Your task to perform on an android device: Do I have any events tomorrow? Image 0: 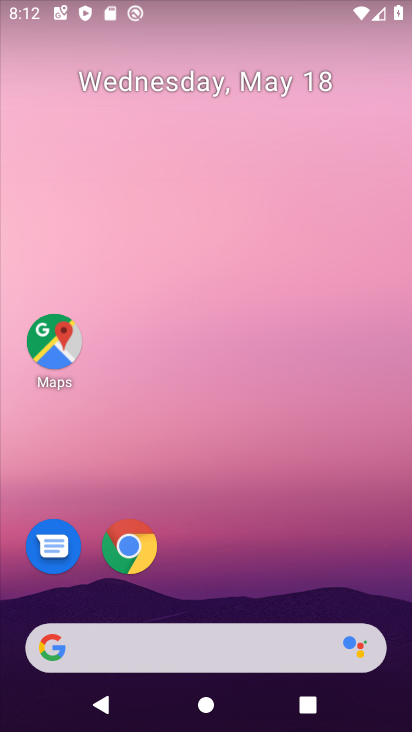
Step 0: drag from (240, 668) to (262, 181)
Your task to perform on an android device: Do I have any events tomorrow? Image 1: 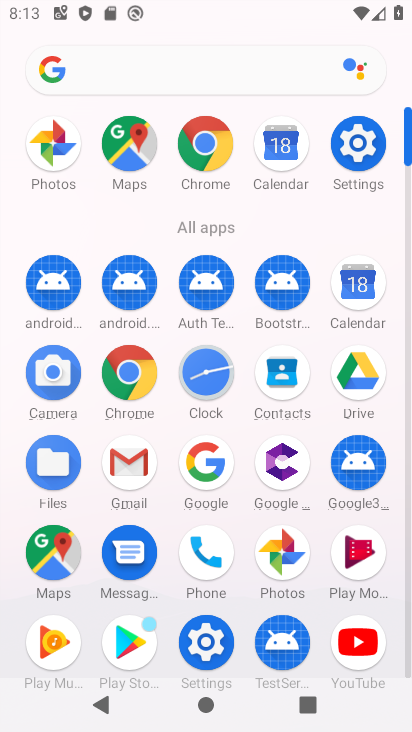
Step 1: click (360, 283)
Your task to perform on an android device: Do I have any events tomorrow? Image 2: 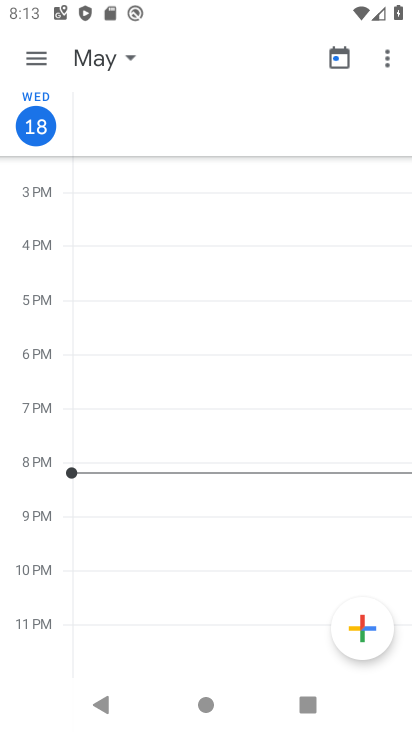
Step 2: click (31, 55)
Your task to perform on an android device: Do I have any events tomorrow? Image 3: 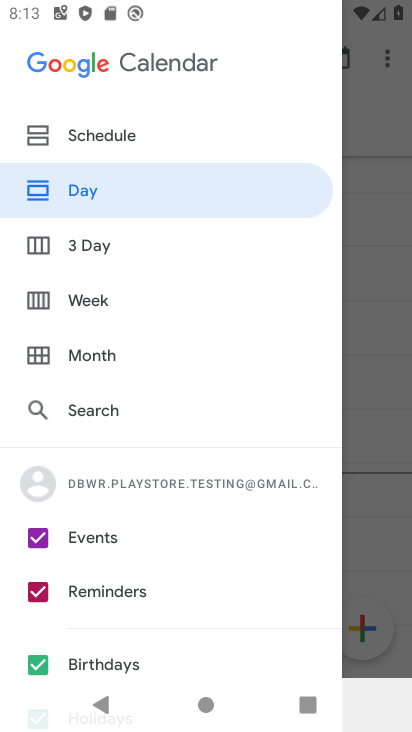
Step 3: click (95, 260)
Your task to perform on an android device: Do I have any events tomorrow? Image 4: 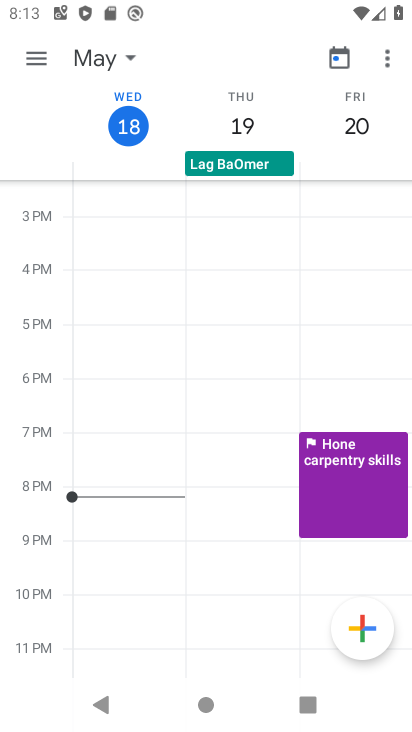
Step 4: click (242, 117)
Your task to perform on an android device: Do I have any events tomorrow? Image 5: 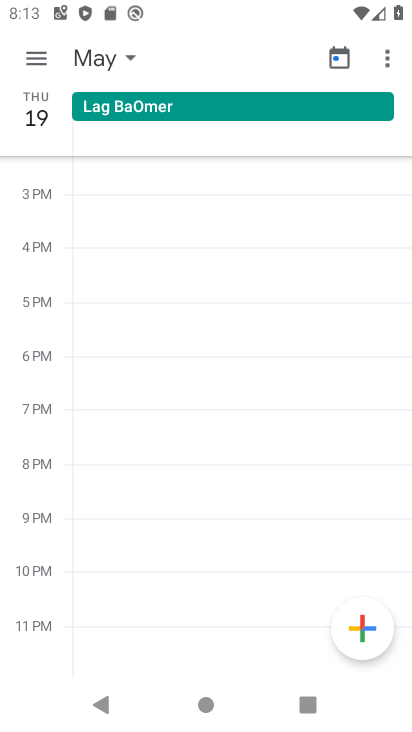
Step 5: click (47, 108)
Your task to perform on an android device: Do I have any events tomorrow? Image 6: 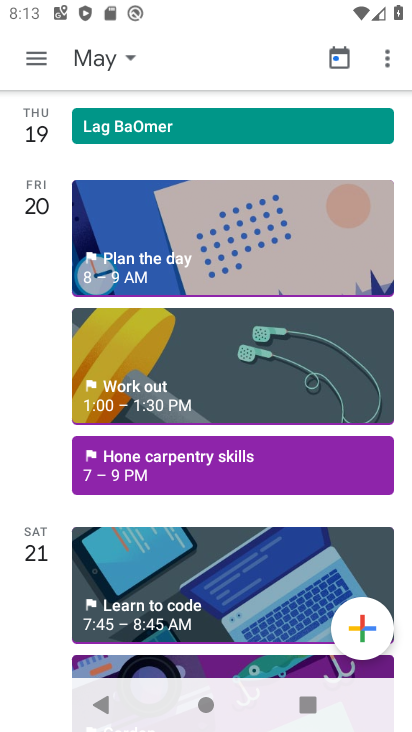
Step 6: task complete